Your task to perform on an android device: Show me the alarms in the clock app Image 0: 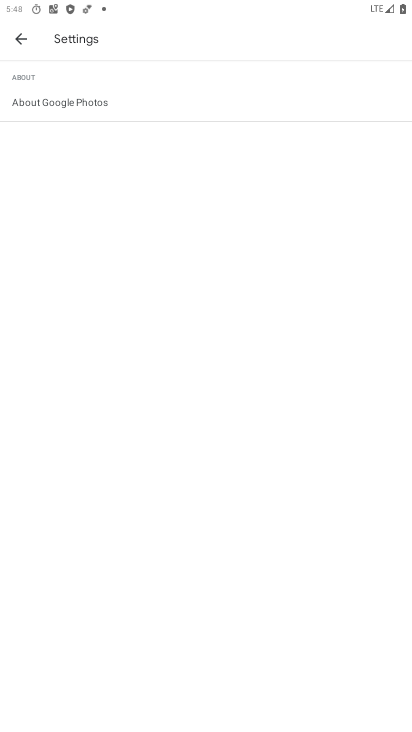
Step 0: task complete